Your task to perform on an android device: turn pop-ups on in chrome Image 0: 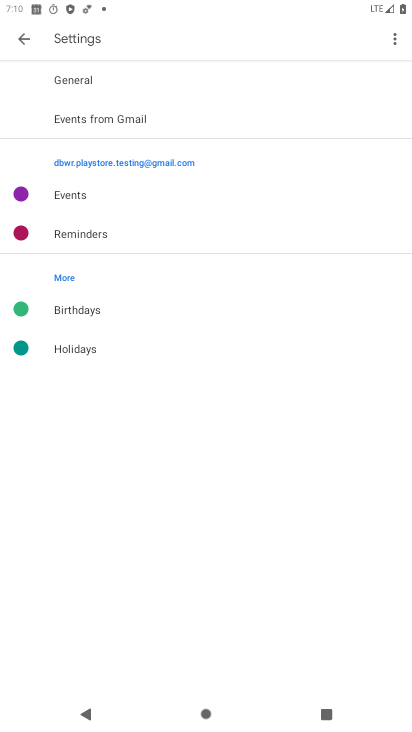
Step 0: press home button
Your task to perform on an android device: turn pop-ups on in chrome Image 1: 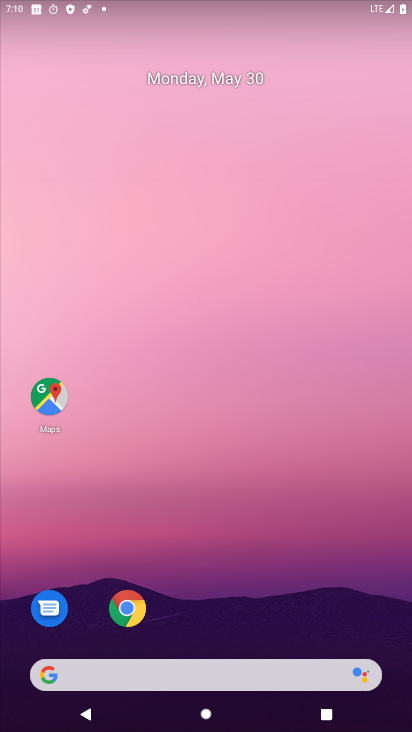
Step 1: click (124, 605)
Your task to perform on an android device: turn pop-ups on in chrome Image 2: 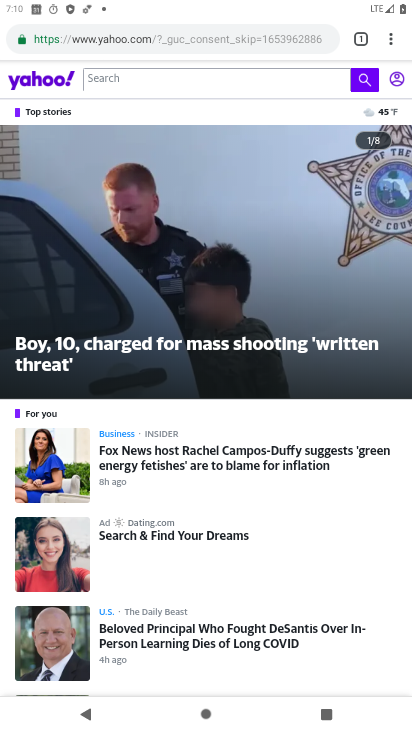
Step 2: click (393, 42)
Your task to perform on an android device: turn pop-ups on in chrome Image 3: 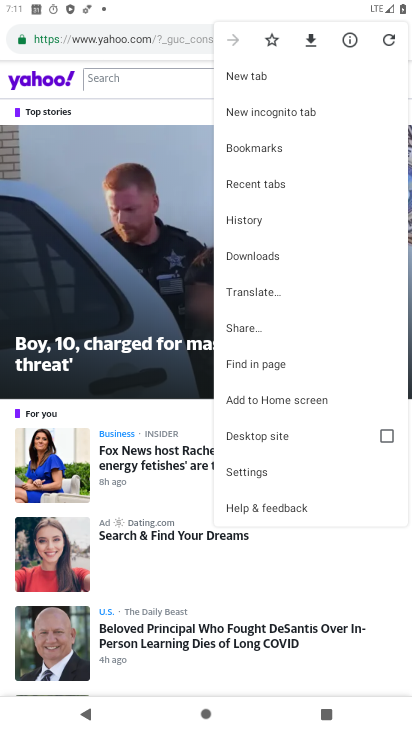
Step 3: click (250, 468)
Your task to perform on an android device: turn pop-ups on in chrome Image 4: 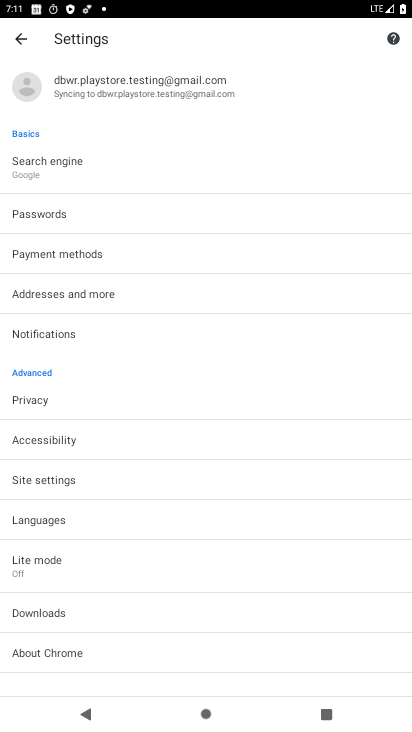
Step 4: click (63, 473)
Your task to perform on an android device: turn pop-ups on in chrome Image 5: 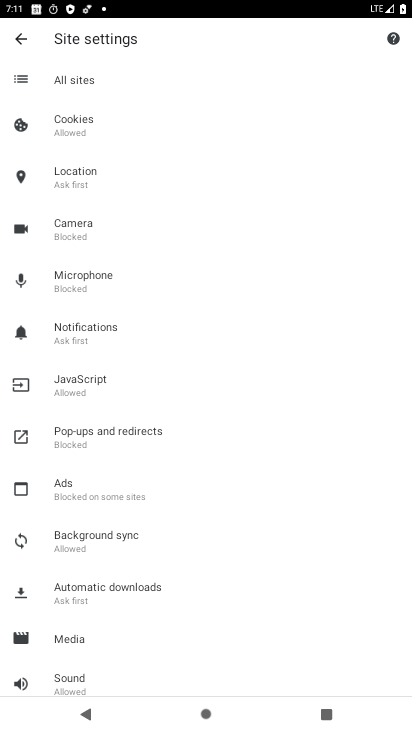
Step 5: click (163, 441)
Your task to perform on an android device: turn pop-ups on in chrome Image 6: 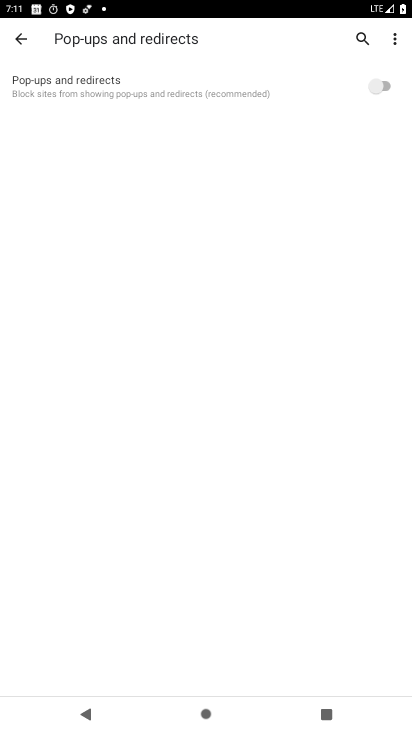
Step 6: click (378, 83)
Your task to perform on an android device: turn pop-ups on in chrome Image 7: 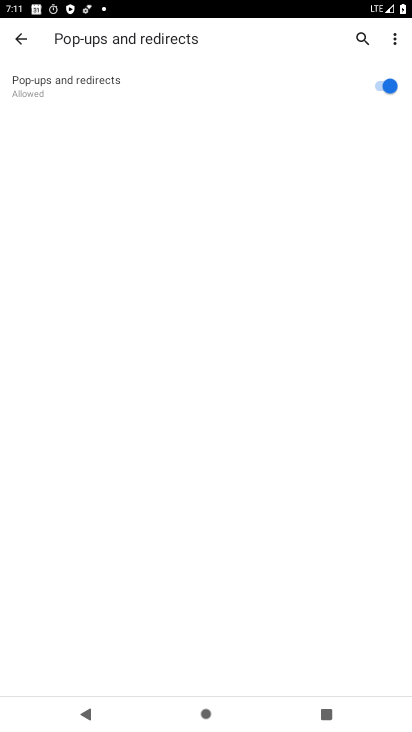
Step 7: task complete